Your task to perform on an android device: View the shopping cart on newegg.com. Search for razer blade on newegg.com, select the first entry, and add it to the cart. Image 0: 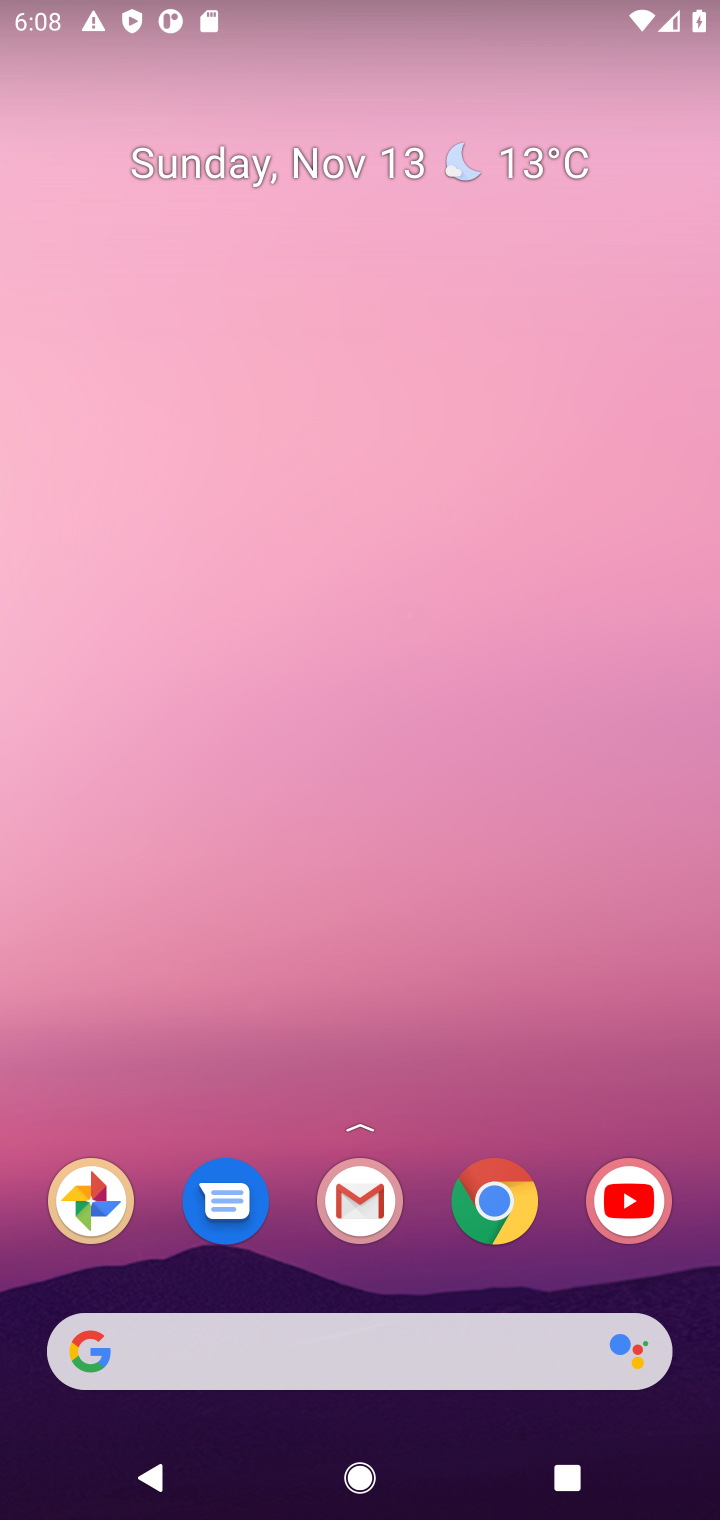
Step 0: drag from (413, 1235) to (375, 251)
Your task to perform on an android device: View the shopping cart on newegg.com. Search for razer blade on newegg.com, select the first entry, and add it to the cart. Image 1: 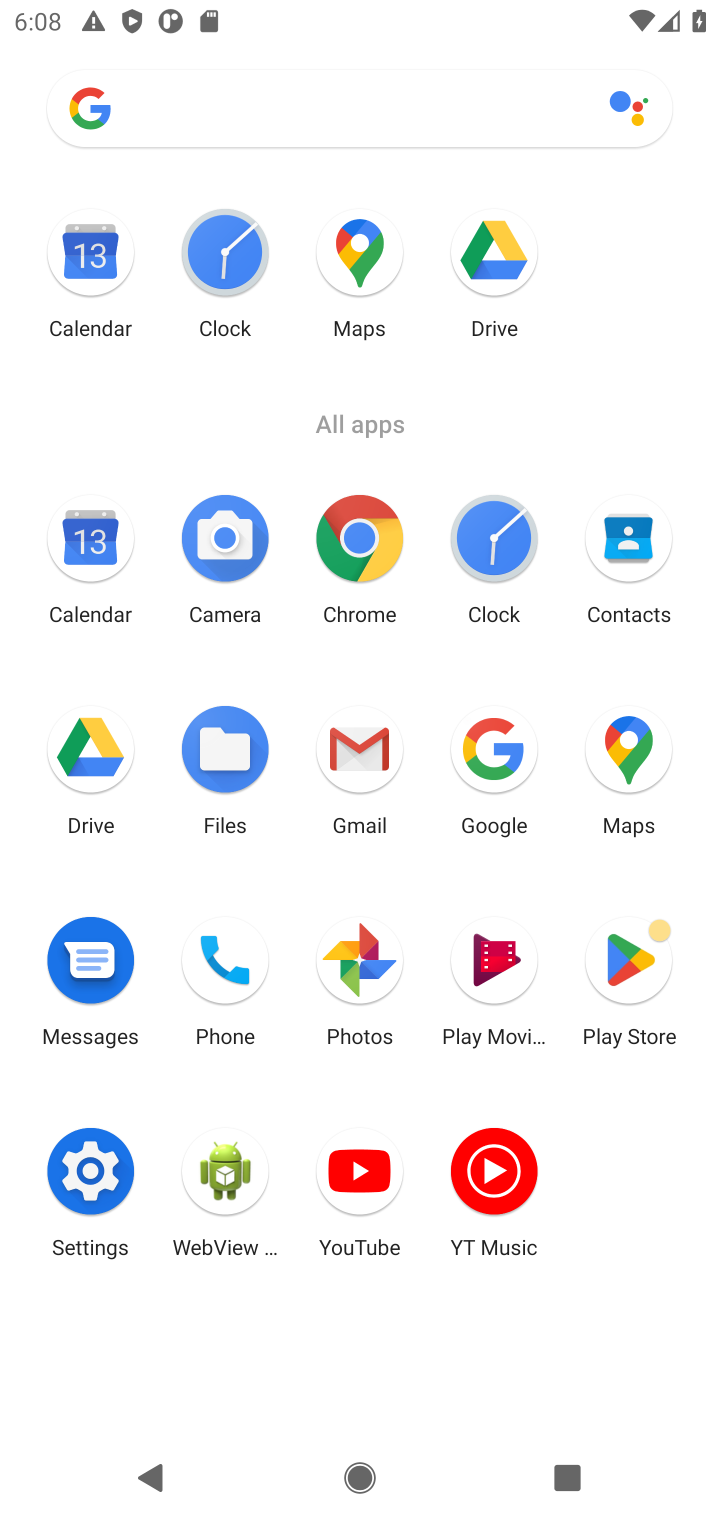
Step 1: click (369, 549)
Your task to perform on an android device: View the shopping cart on newegg.com. Search for razer blade on newegg.com, select the first entry, and add it to the cart. Image 2: 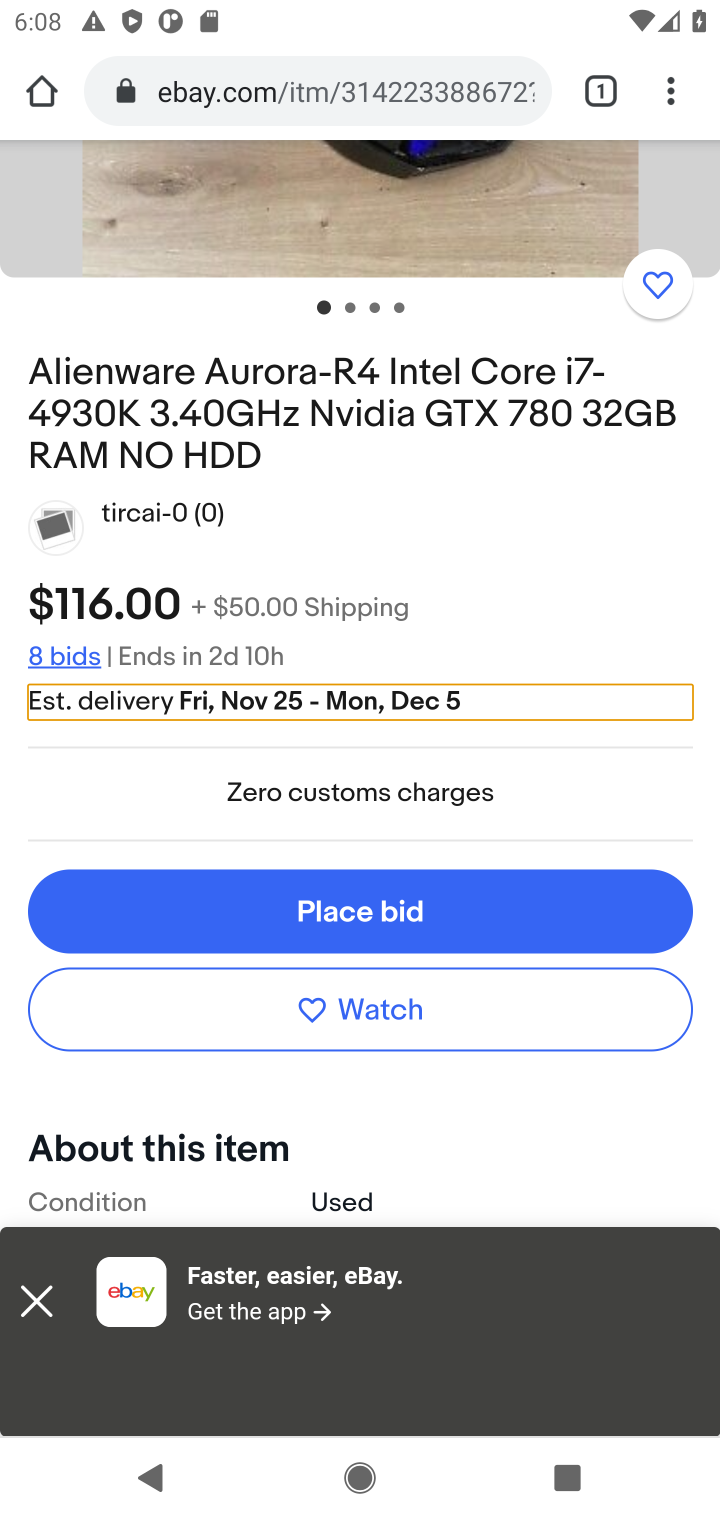
Step 2: click (449, 81)
Your task to perform on an android device: View the shopping cart on newegg.com. Search for razer blade on newegg.com, select the first entry, and add it to the cart. Image 3: 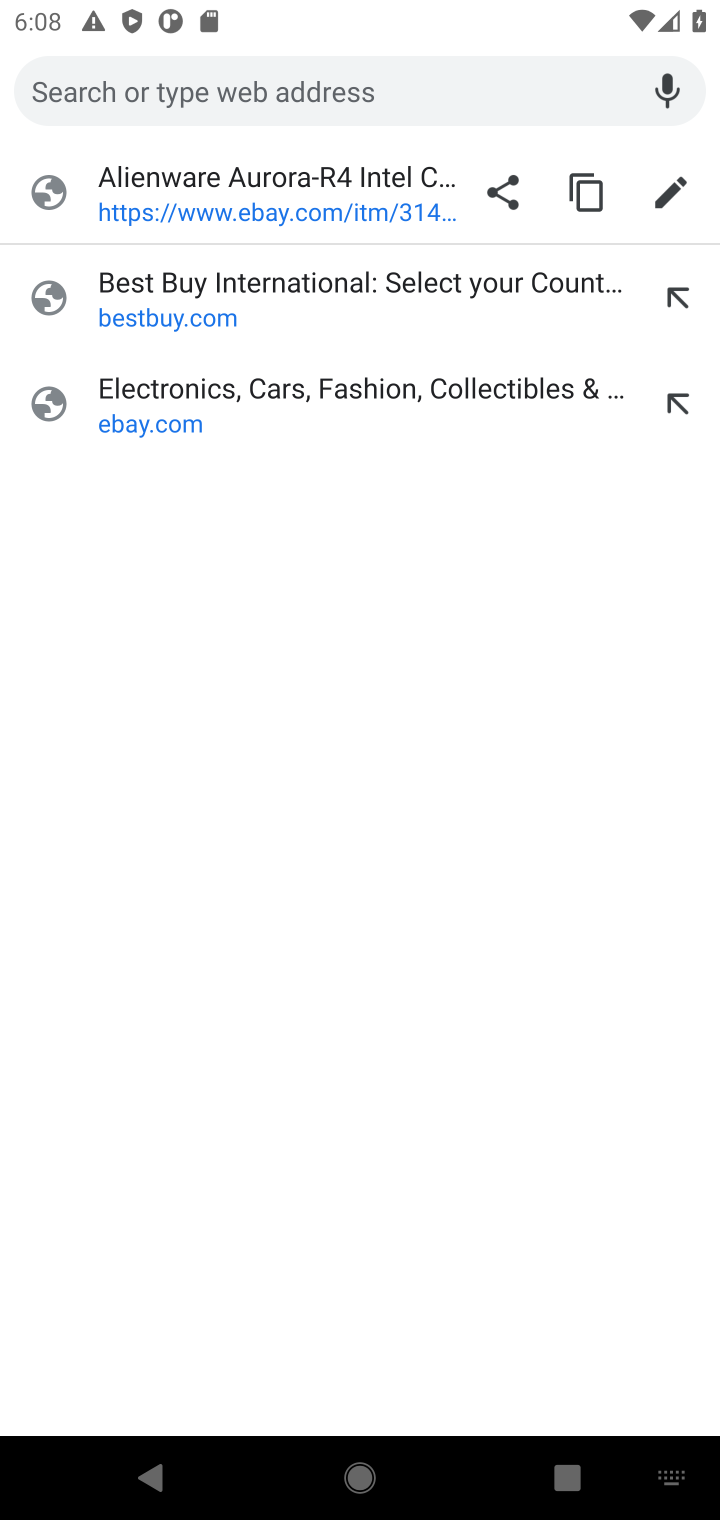
Step 3: type "newegg.com"
Your task to perform on an android device: View the shopping cart on newegg.com. Search for razer blade on newegg.com, select the first entry, and add it to the cart. Image 4: 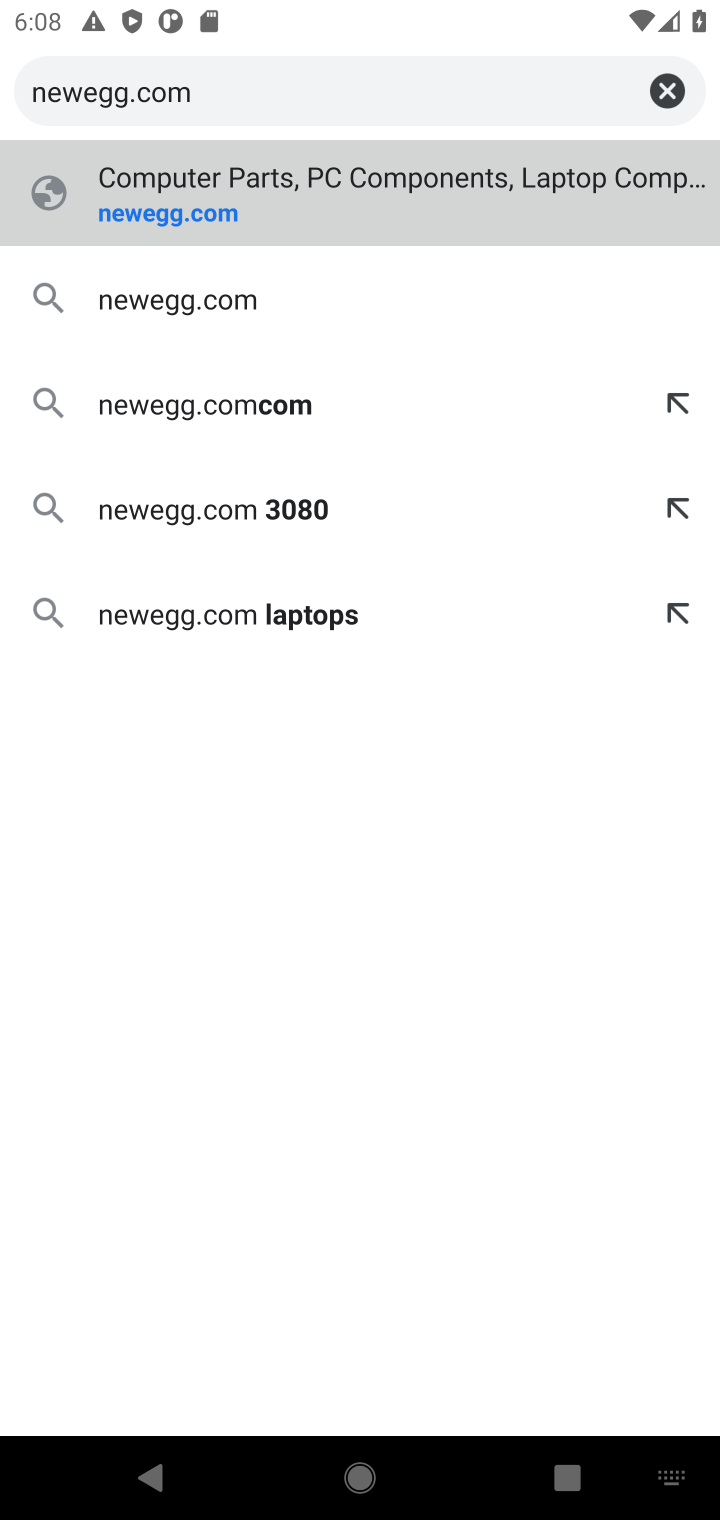
Step 4: press enter
Your task to perform on an android device: View the shopping cart on newegg.com. Search for razer blade on newegg.com, select the first entry, and add it to the cart. Image 5: 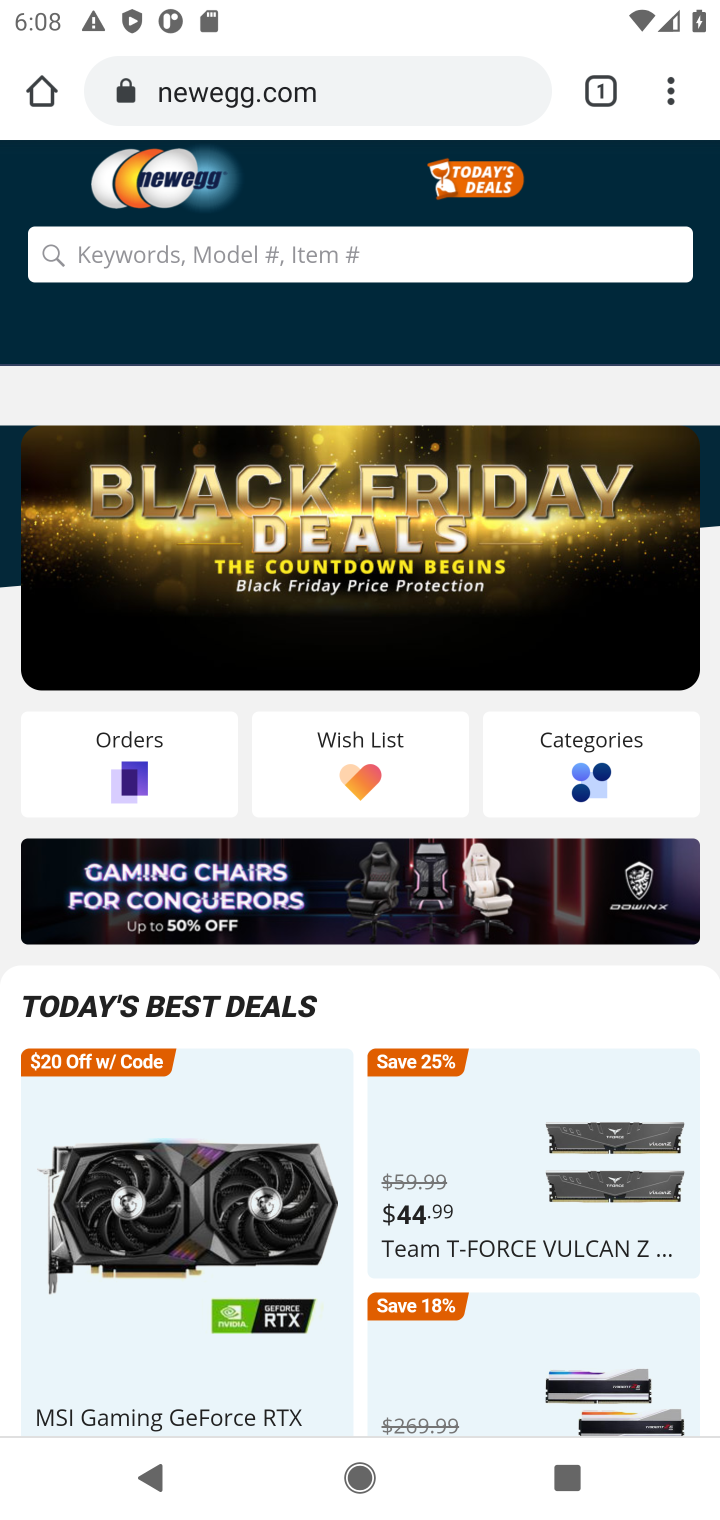
Step 5: click (270, 241)
Your task to perform on an android device: View the shopping cart on newegg.com. Search for razer blade on newegg.com, select the first entry, and add it to the cart. Image 6: 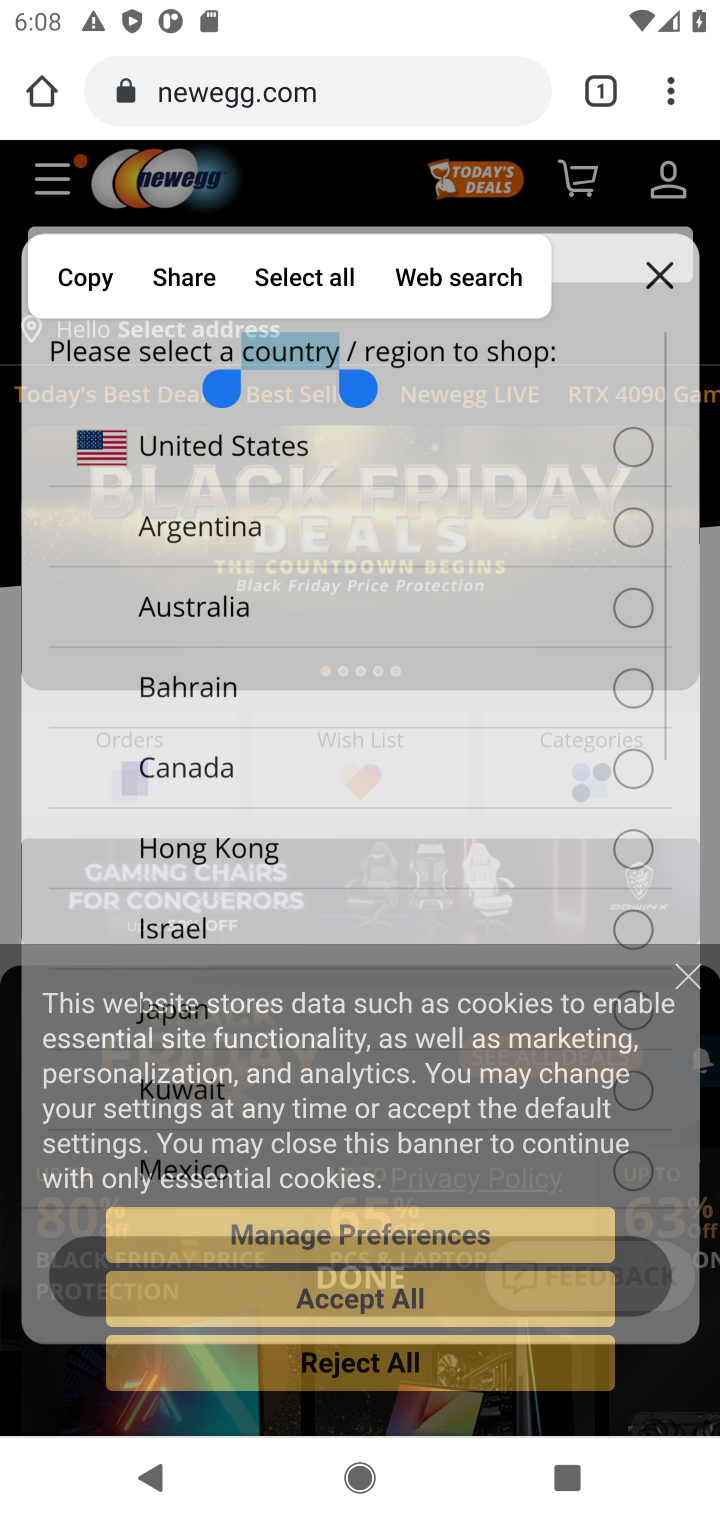
Step 6: click (586, 168)
Your task to perform on an android device: View the shopping cart on newegg.com. Search for razer blade on newegg.com, select the first entry, and add it to the cart. Image 7: 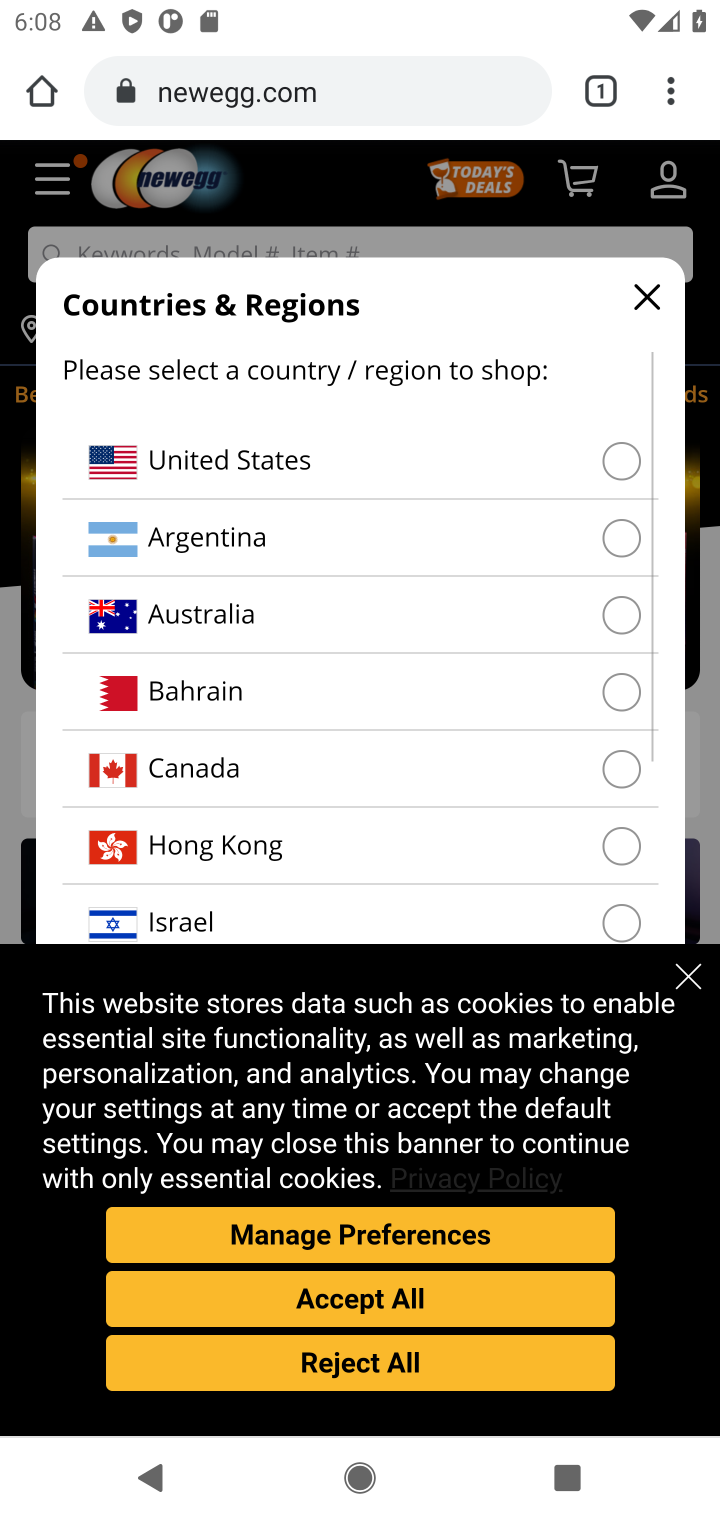
Step 7: click (584, 174)
Your task to perform on an android device: View the shopping cart on newegg.com. Search for razer blade on newegg.com, select the first entry, and add it to the cart. Image 8: 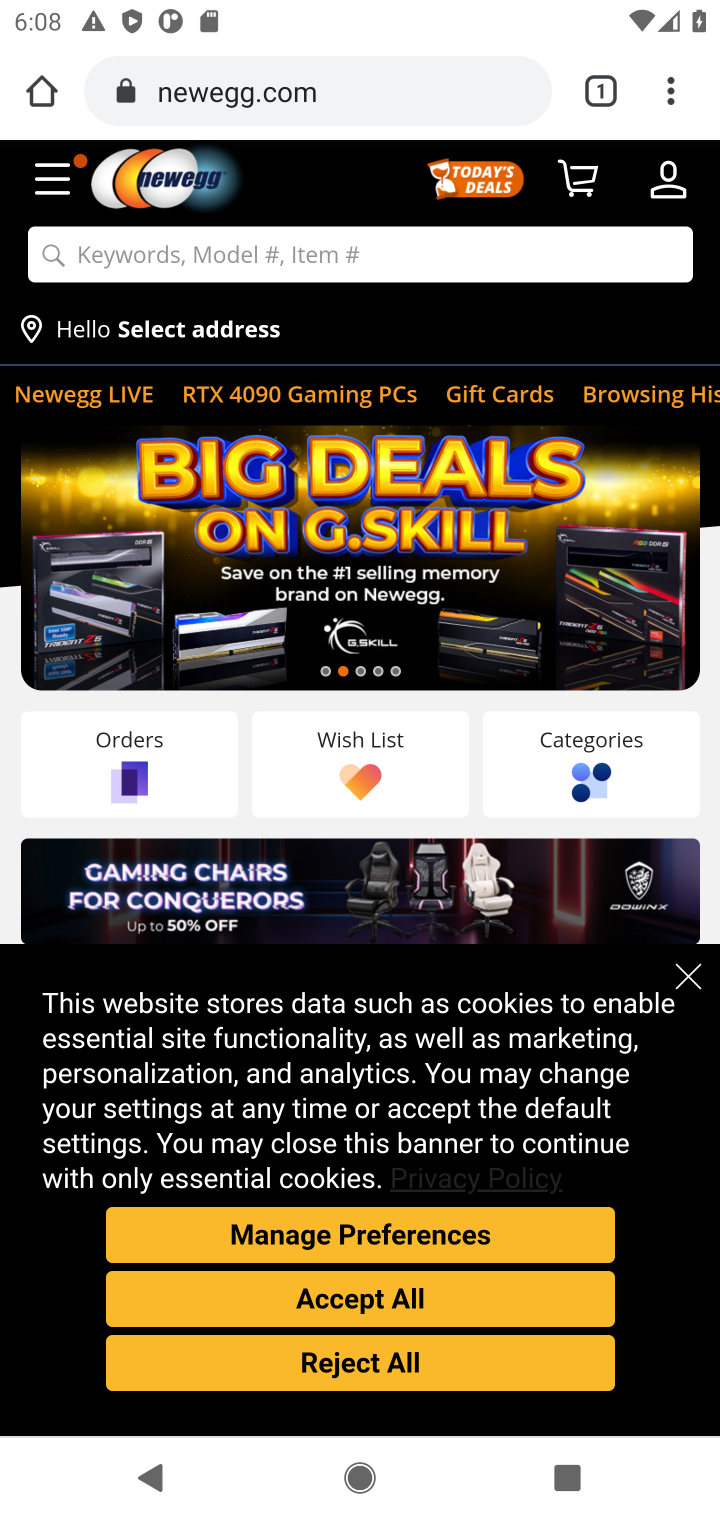
Step 8: click (573, 176)
Your task to perform on an android device: View the shopping cart on newegg.com. Search for razer blade on newegg.com, select the first entry, and add it to the cart. Image 9: 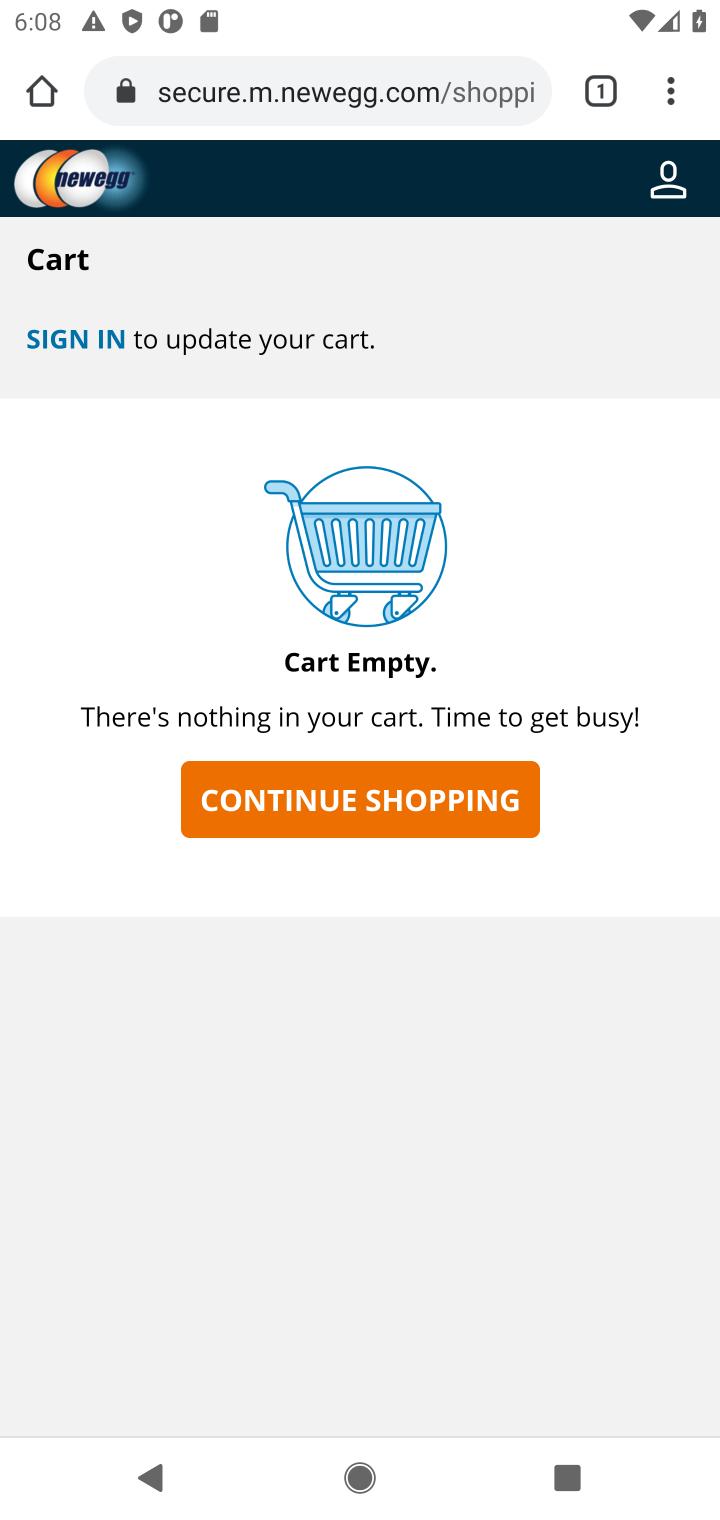
Step 9: click (428, 786)
Your task to perform on an android device: View the shopping cart on newegg.com. Search for razer blade on newegg.com, select the first entry, and add it to the cart. Image 10: 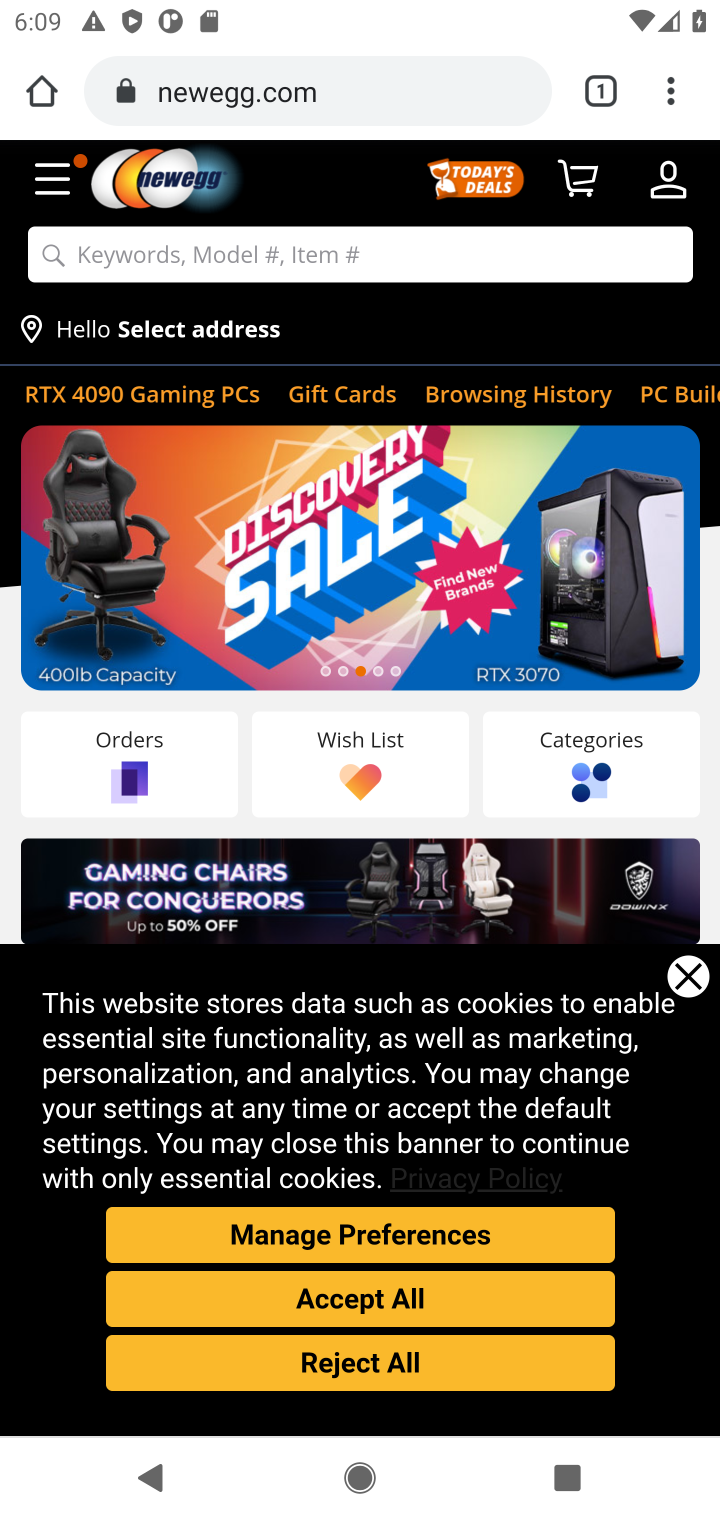
Step 10: click (450, 239)
Your task to perform on an android device: View the shopping cart on newegg.com. Search for razer blade on newegg.com, select the first entry, and add it to the cart. Image 11: 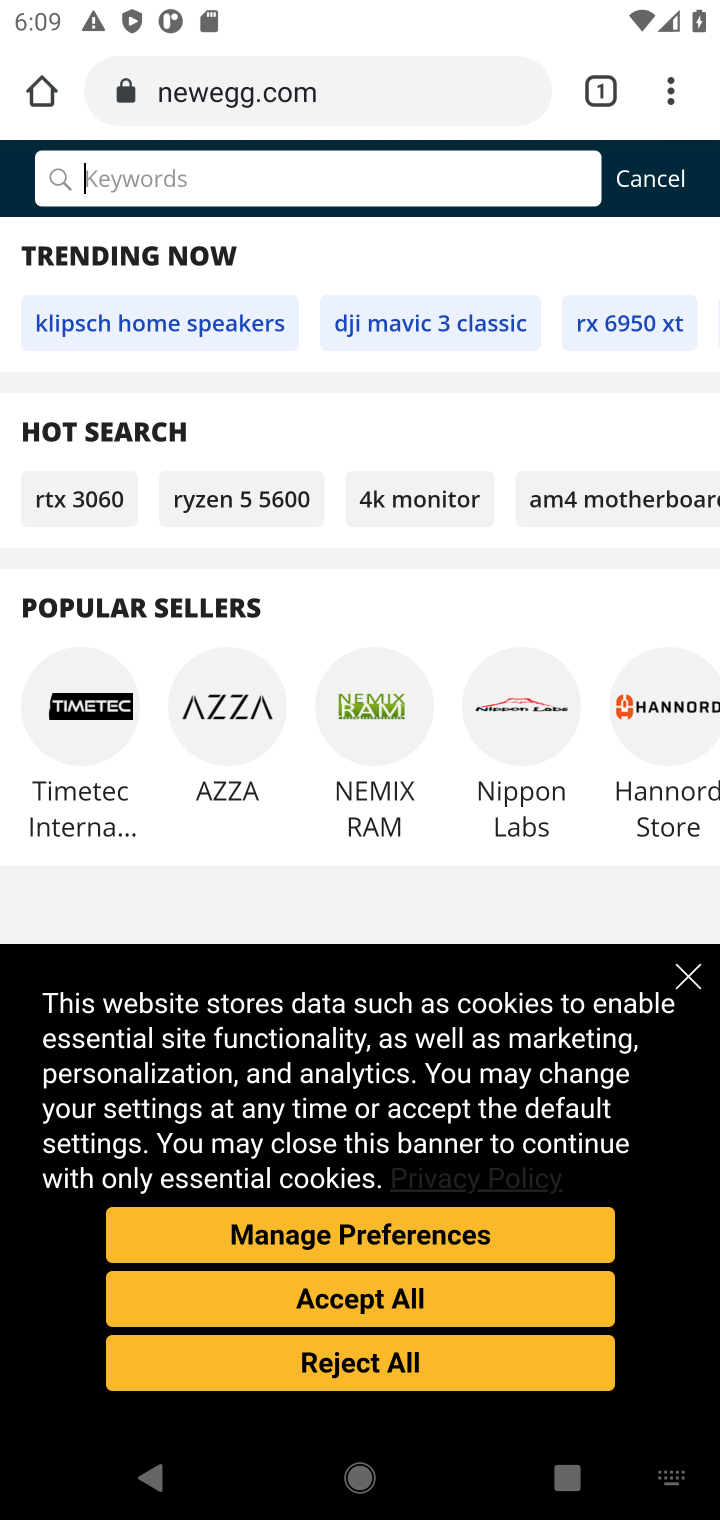
Step 11: type "razer blade"
Your task to perform on an android device: View the shopping cart on newegg.com. Search for razer blade on newegg.com, select the first entry, and add it to the cart. Image 12: 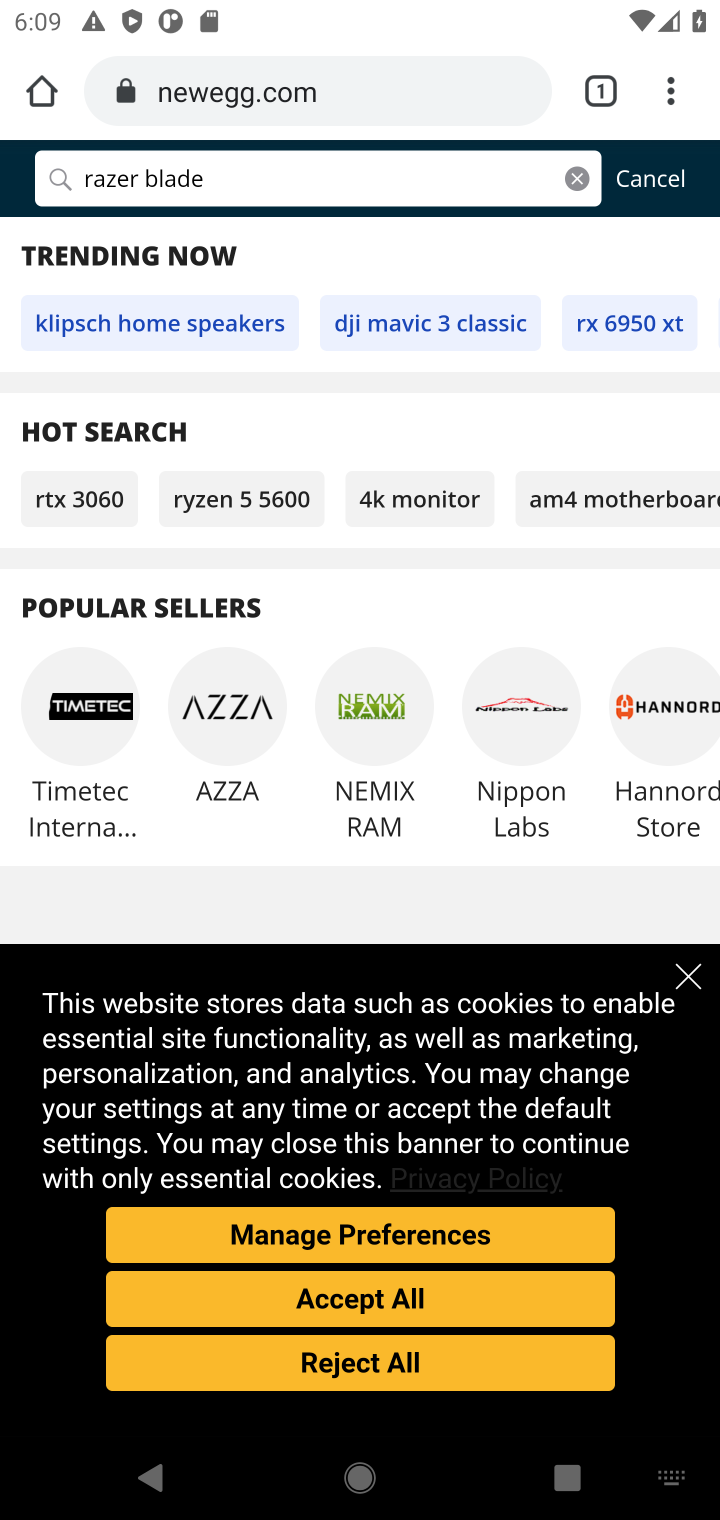
Step 12: press enter
Your task to perform on an android device: View the shopping cart on newegg.com. Search for razer blade on newegg.com, select the first entry, and add it to the cart. Image 13: 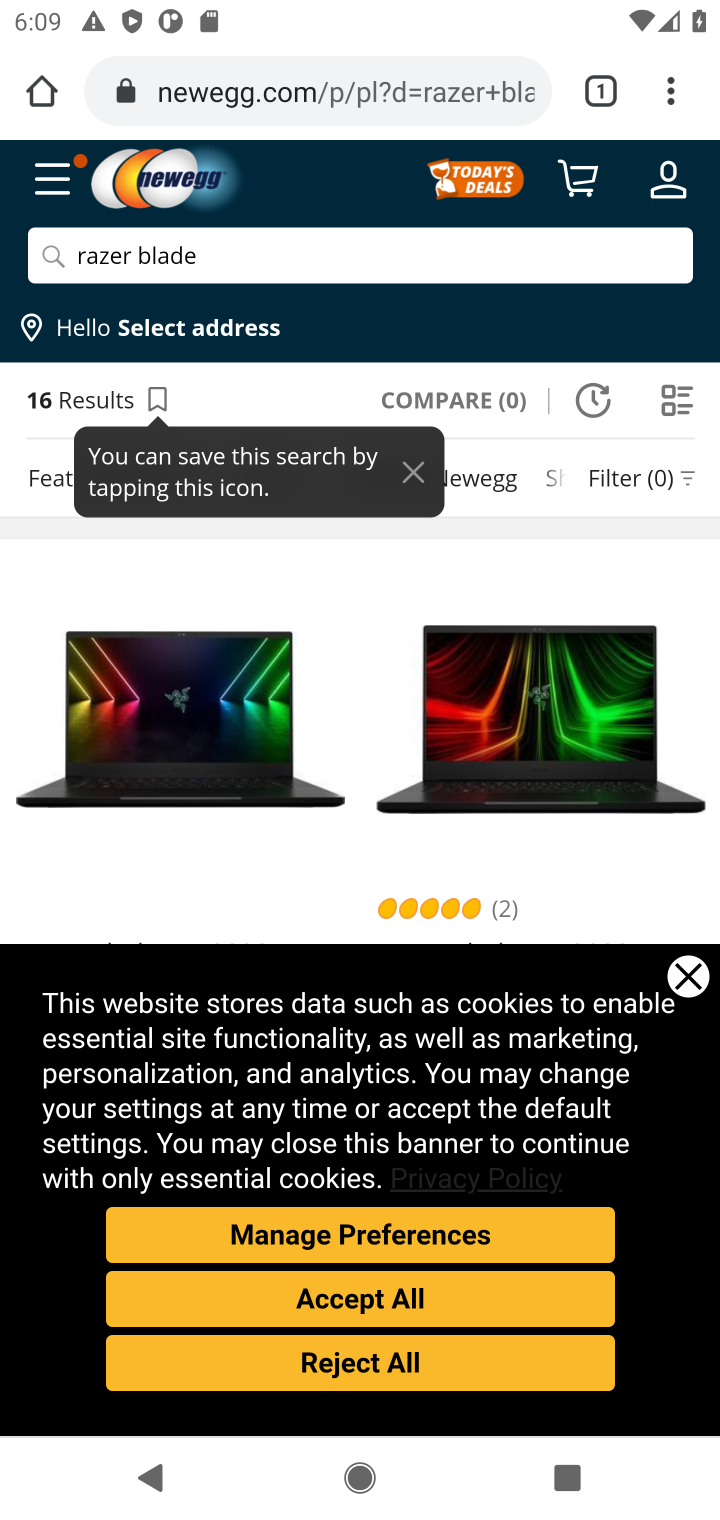
Step 13: click (418, 1308)
Your task to perform on an android device: View the shopping cart on newegg.com. Search for razer blade on newegg.com, select the first entry, and add it to the cart. Image 14: 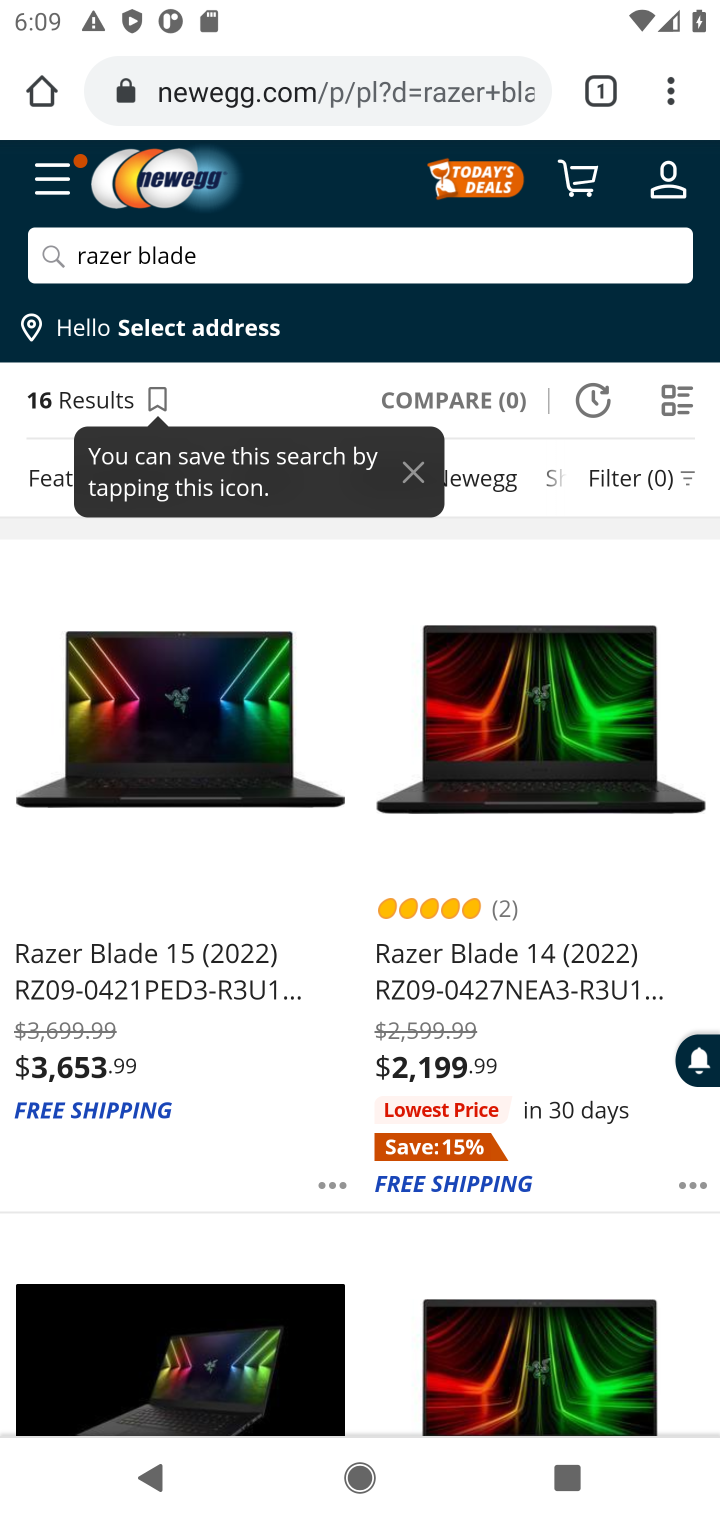
Step 14: click (168, 962)
Your task to perform on an android device: View the shopping cart on newegg.com. Search for razer blade on newegg.com, select the first entry, and add it to the cart. Image 15: 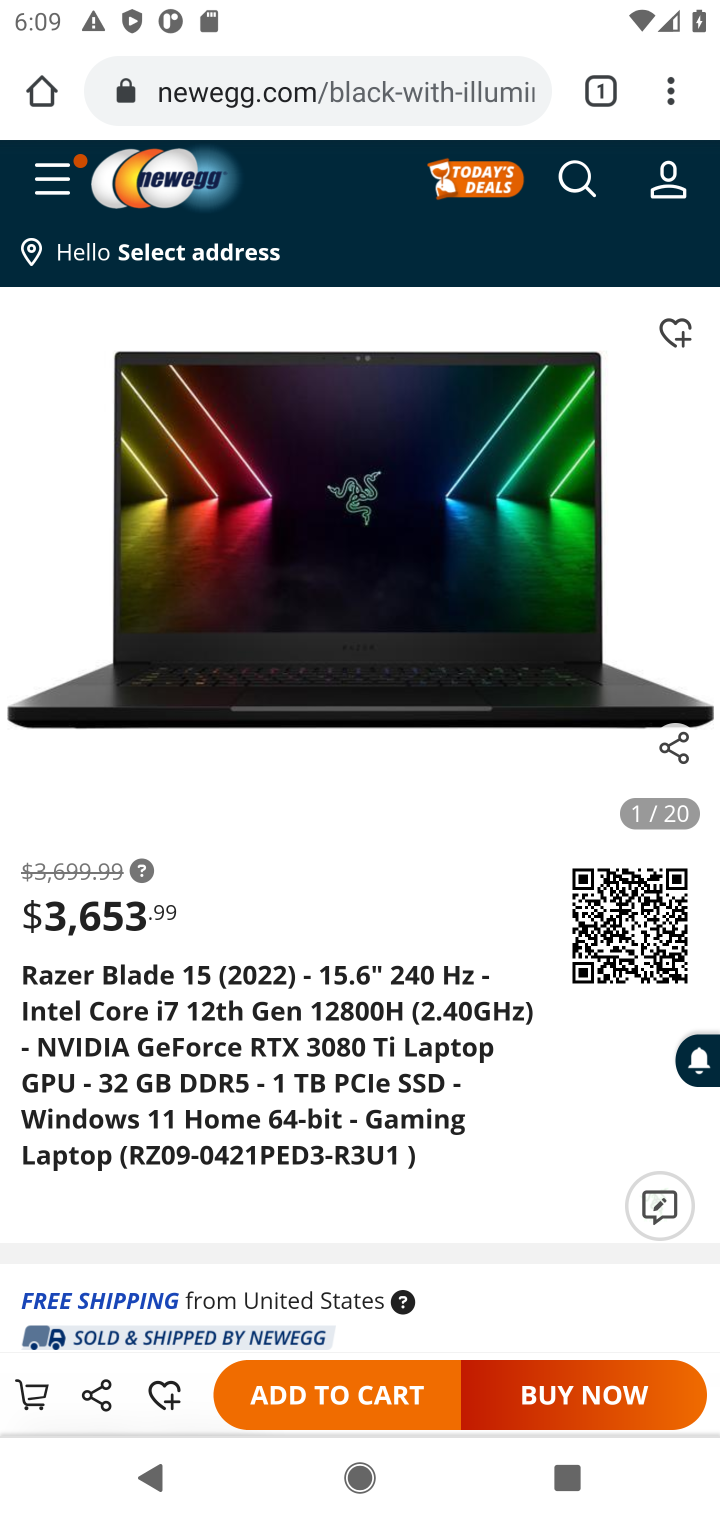
Step 15: click (361, 1379)
Your task to perform on an android device: View the shopping cart on newegg.com. Search for razer blade on newegg.com, select the first entry, and add it to the cart. Image 16: 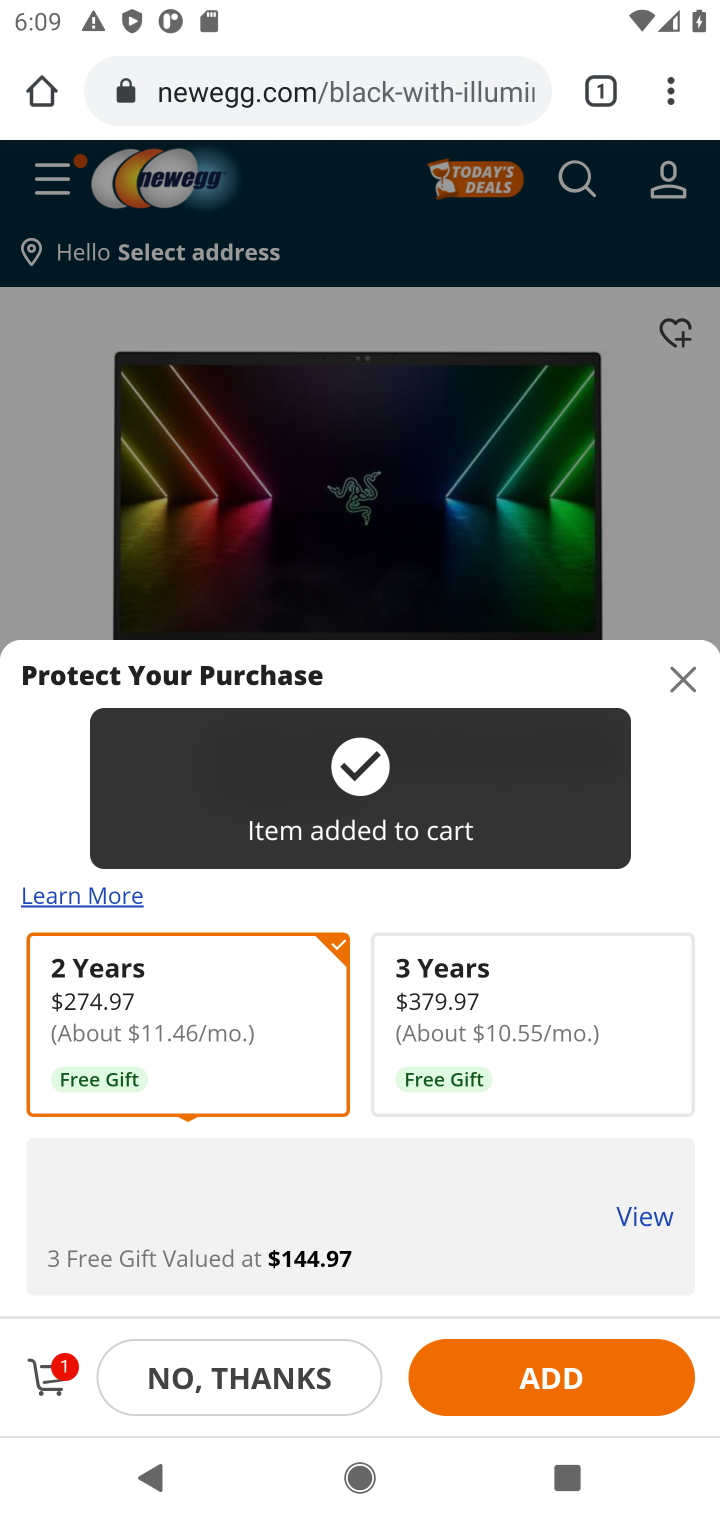
Step 16: task complete